Your task to perform on an android device: Open settings Image 0: 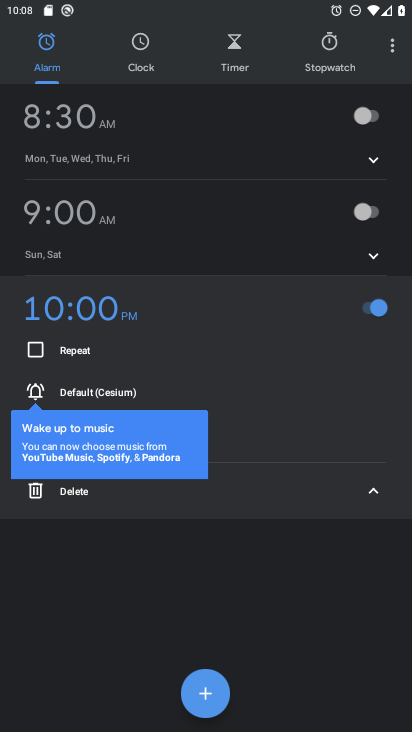
Step 0: press home button
Your task to perform on an android device: Open settings Image 1: 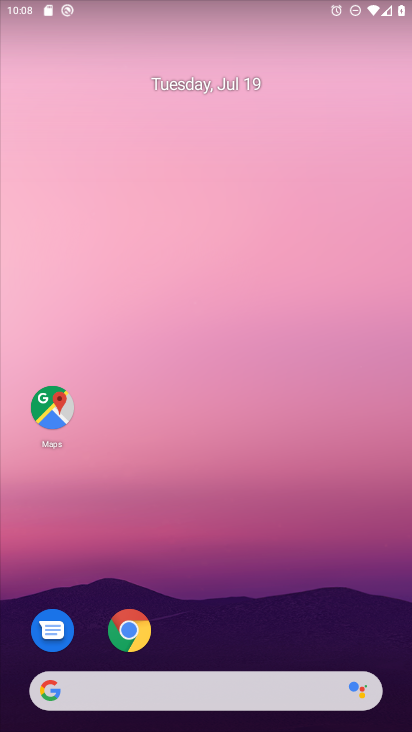
Step 1: drag from (243, 646) to (220, 141)
Your task to perform on an android device: Open settings Image 2: 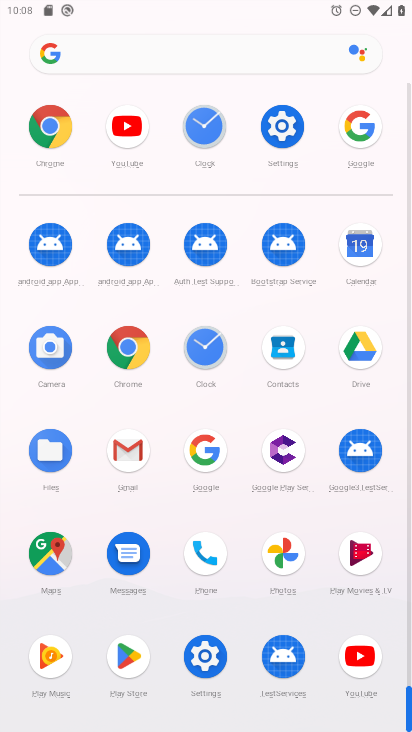
Step 2: click (277, 138)
Your task to perform on an android device: Open settings Image 3: 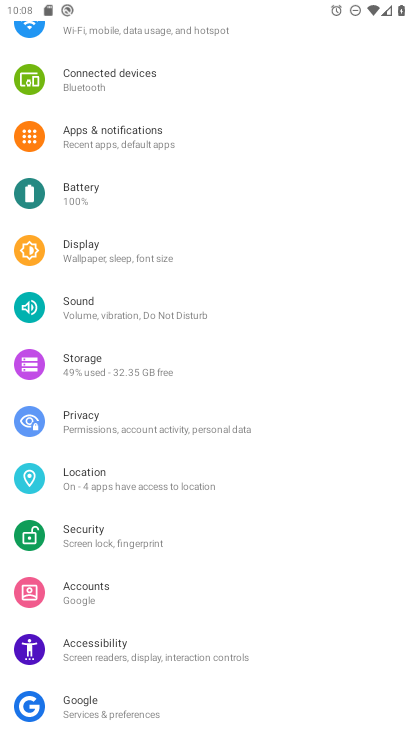
Step 3: task complete